Your task to perform on an android device: Open the calendar app, open the side menu, and click the "Day" option Image 0: 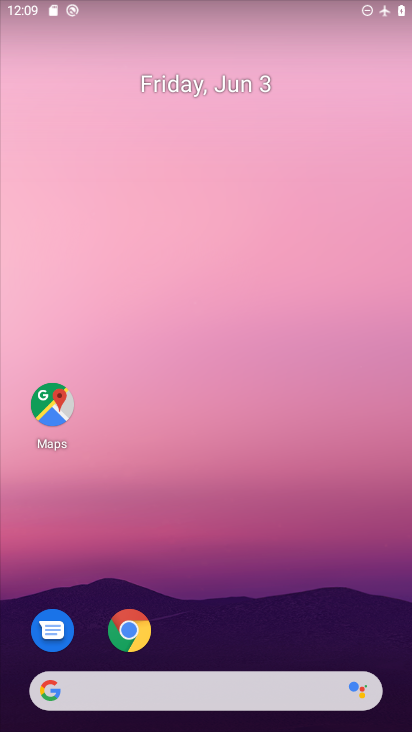
Step 0: click (281, 110)
Your task to perform on an android device: Open the calendar app, open the side menu, and click the "Day" option Image 1: 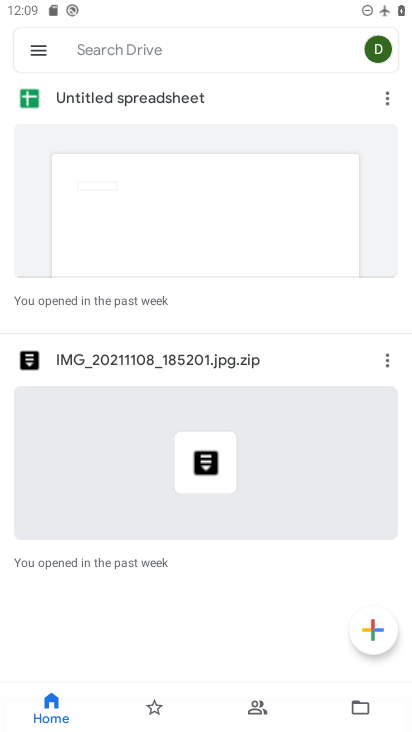
Step 1: press home button
Your task to perform on an android device: Open the calendar app, open the side menu, and click the "Day" option Image 2: 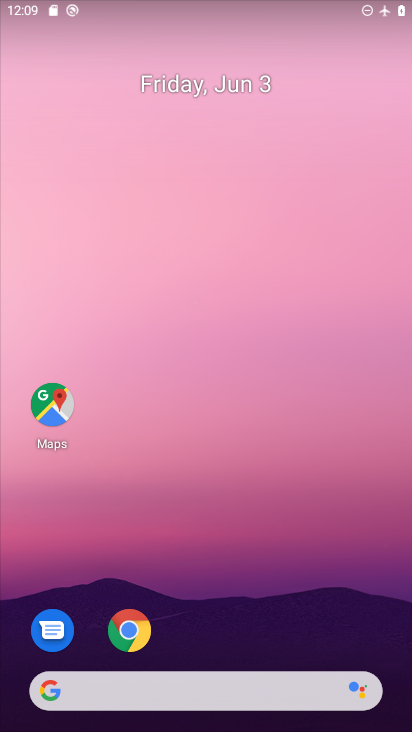
Step 2: drag from (258, 653) to (237, 180)
Your task to perform on an android device: Open the calendar app, open the side menu, and click the "Day" option Image 3: 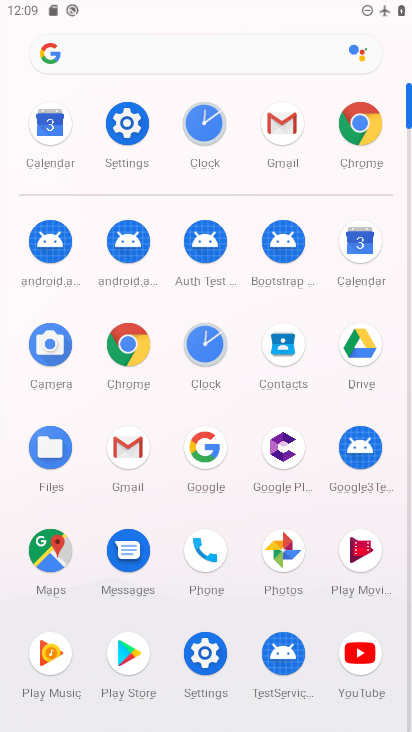
Step 3: click (54, 152)
Your task to perform on an android device: Open the calendar app, open the side menu, and click the "Day" option Image 4: 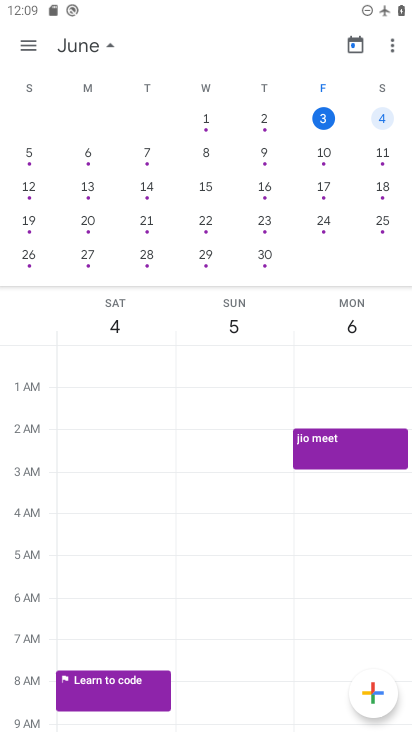
Step 4: click (34, 34)
Your task to perform on an android device: Open the calendar app, open the side menu, and click the "Day" option Image 5: 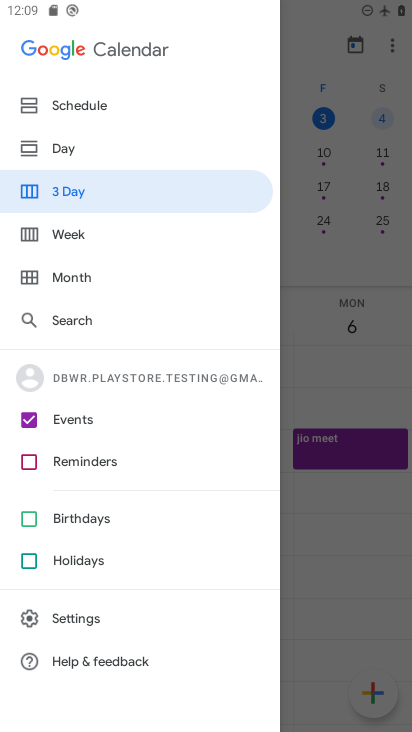
Step 5: click (61, 140)
Your task to perform on an android device: Open the calendar app, open the side menu, and click the "Day" option Image 6: 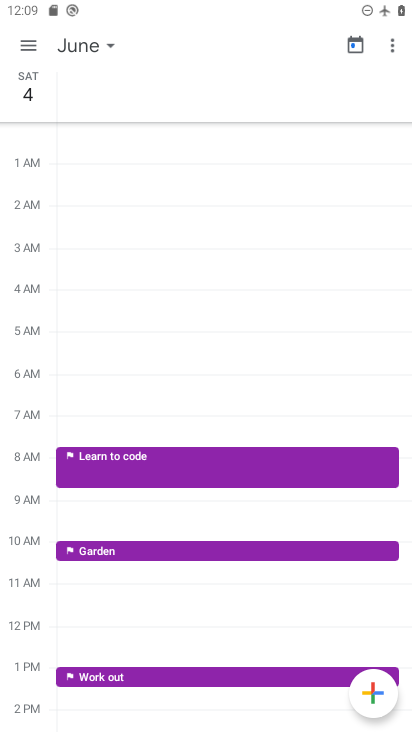
Step 6: task complete